Your task to perform on an android device: open chrome and create a bookmark for the current page Image 0: 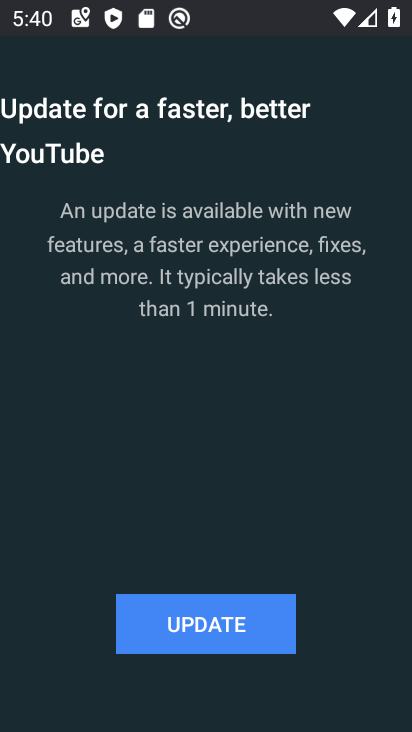
Step 0: press home button
Your task to perform on an android device: open chrome and create a bookmark for the current page Image 1: 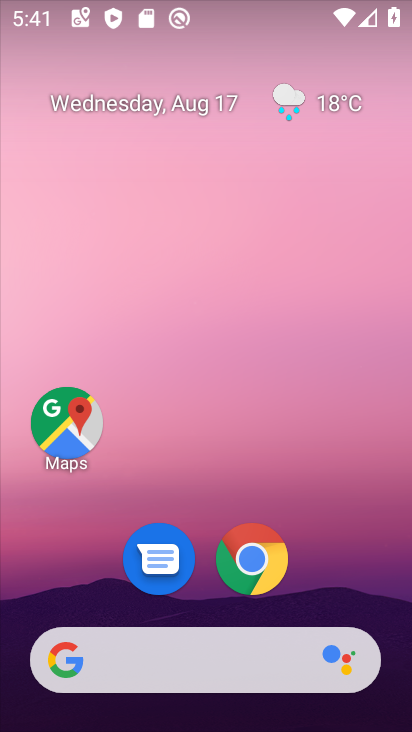
Step 1: click (274, 546)
Your task to perform on an android device: open chrome and create a bookmark for the current page Image 2: 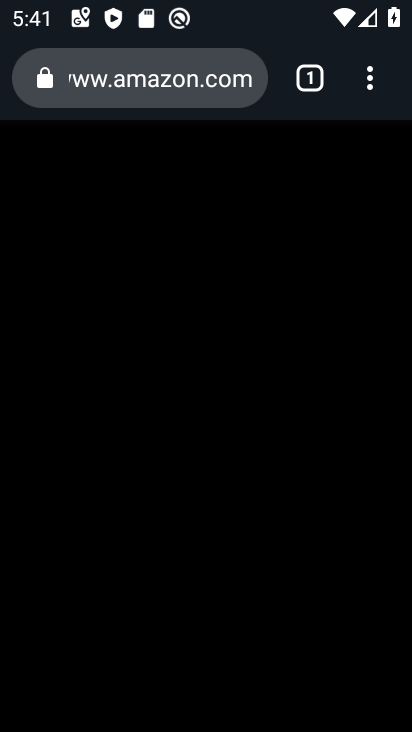
Step 2: task complete